Your task to perform on an android device: Open settings Image 0: 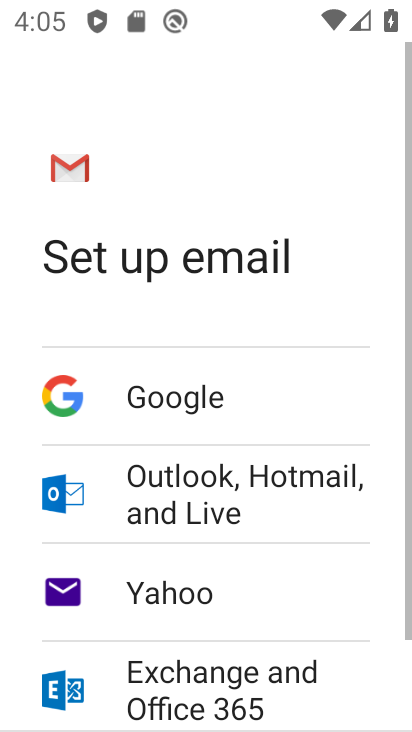
Step 0: press home button
Your task to perform on an android device: Open settings Image 1: 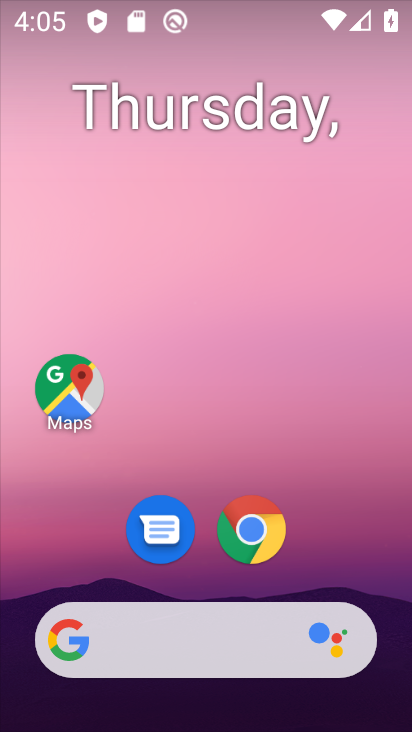
Step 1: drag from (262, 724) to (259, 104)
Your task to perform on an android device: Open settings Image 2: 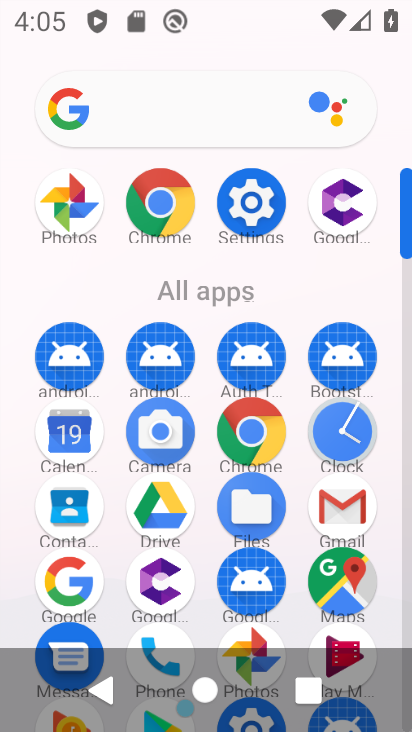
Step 2: click (255, 205)
Your task to perform on an android device: Open settings Image 3: 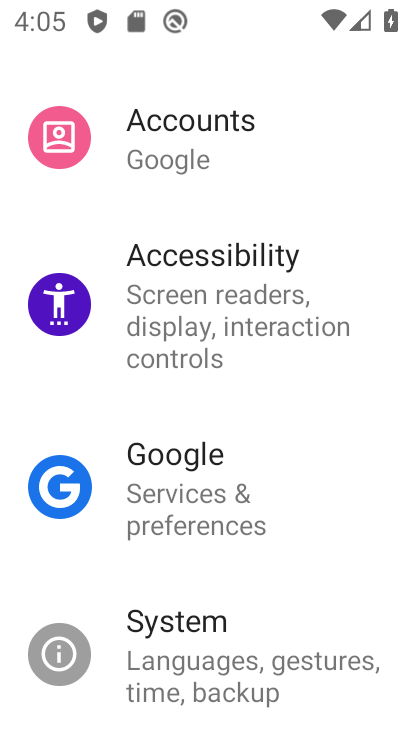
Step 3: task complete